Your task to perform on an android device: turn on data saver in the chrome app Image 0: 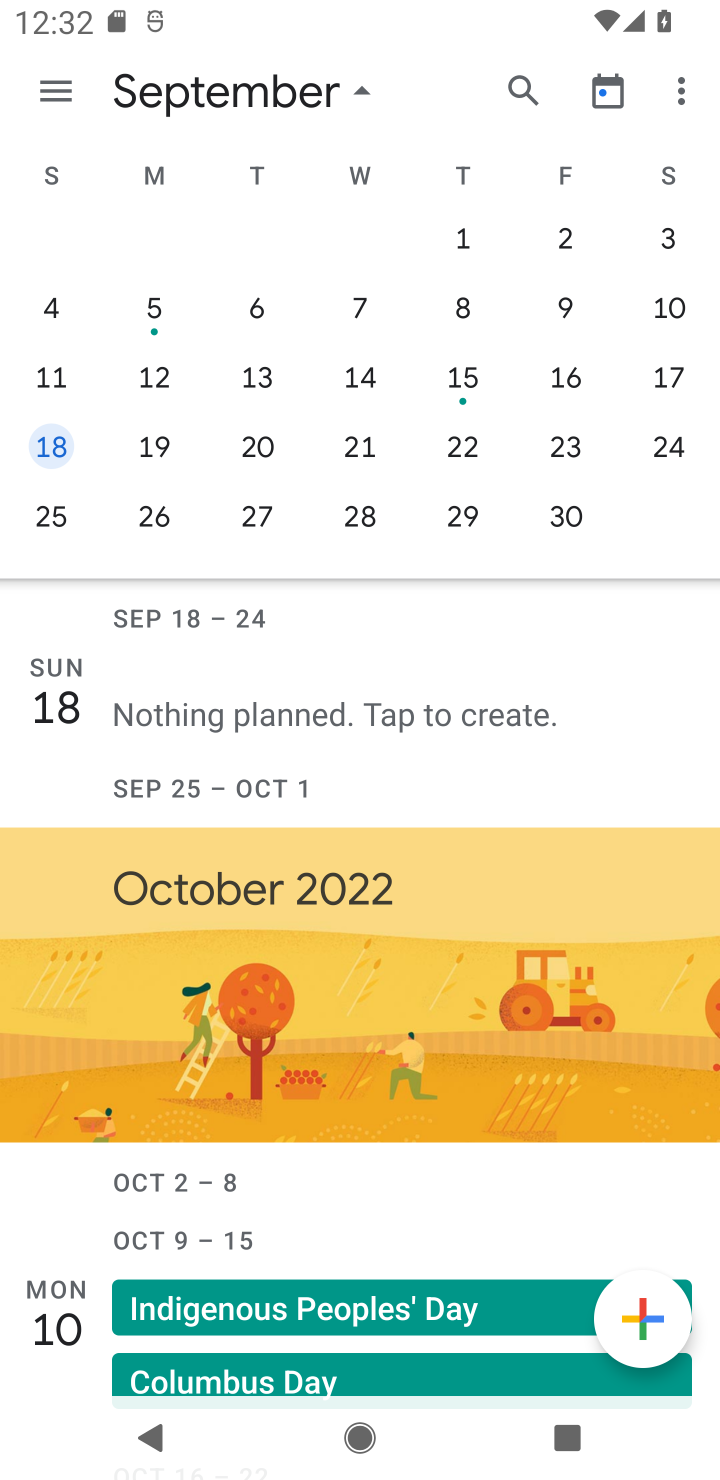
Step 0: task complete